Your task to perform on an android device: Empty the shopping cart on target. Image 0: 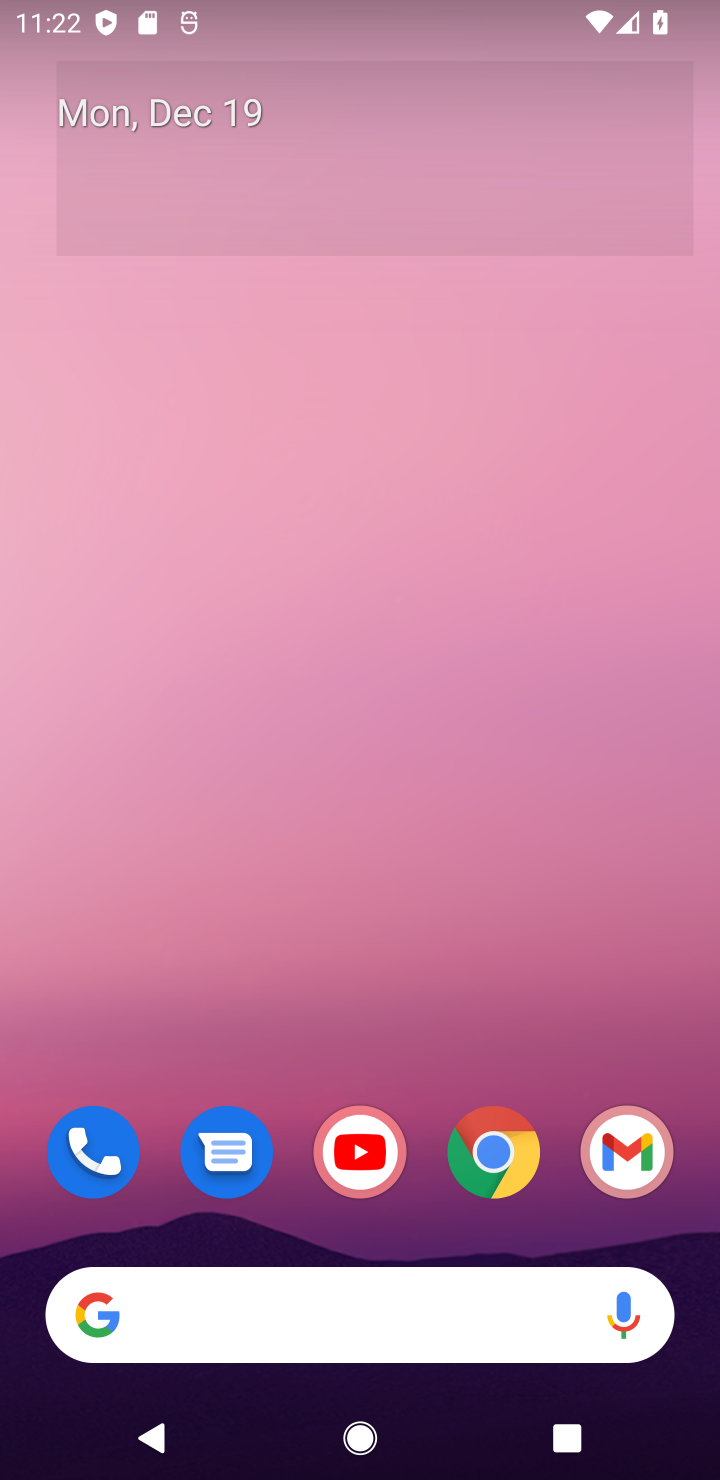
Step 0: click (493, 1164)
Your task to perform on an android device: Empty the shopping cart on target. Image 1: 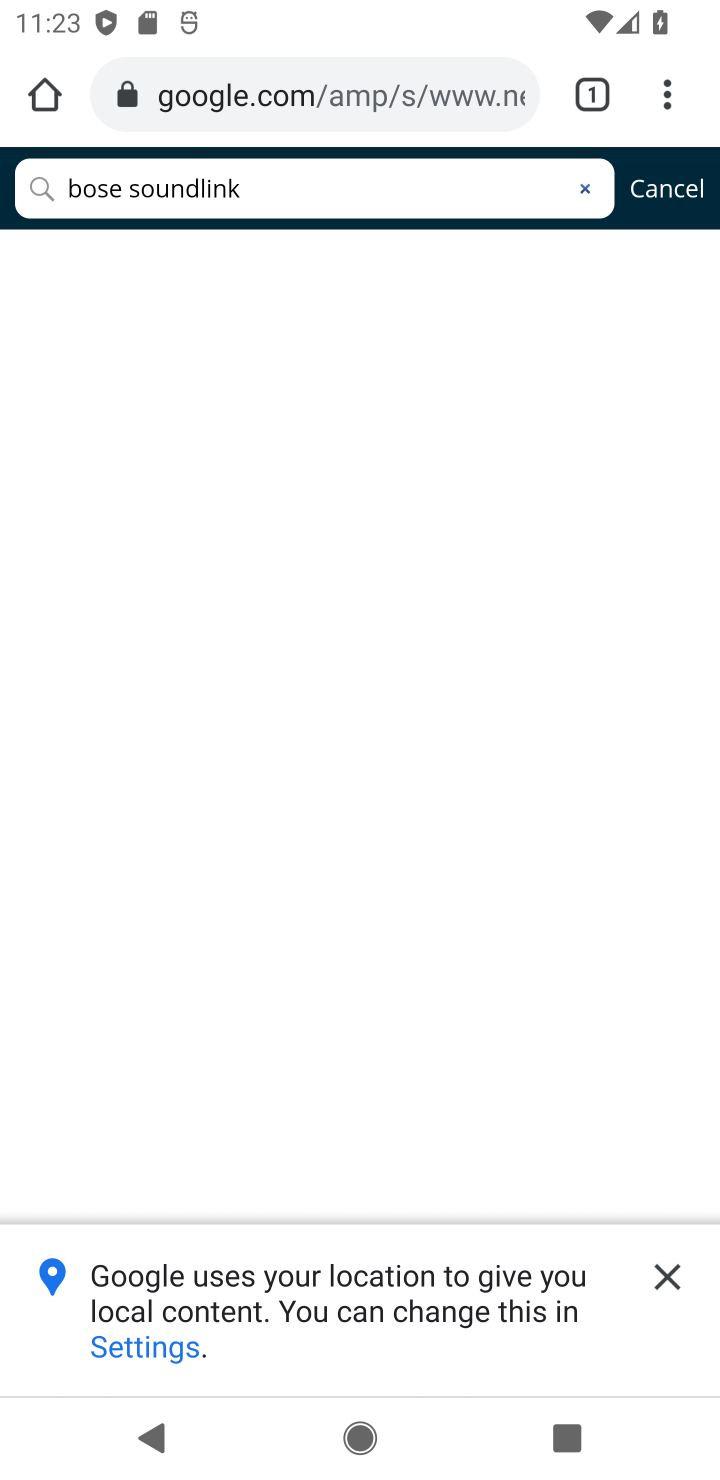
Step 1: click (333, 99)
Your task to perform on an android device: Empty the shopping cart on target. Image 2: 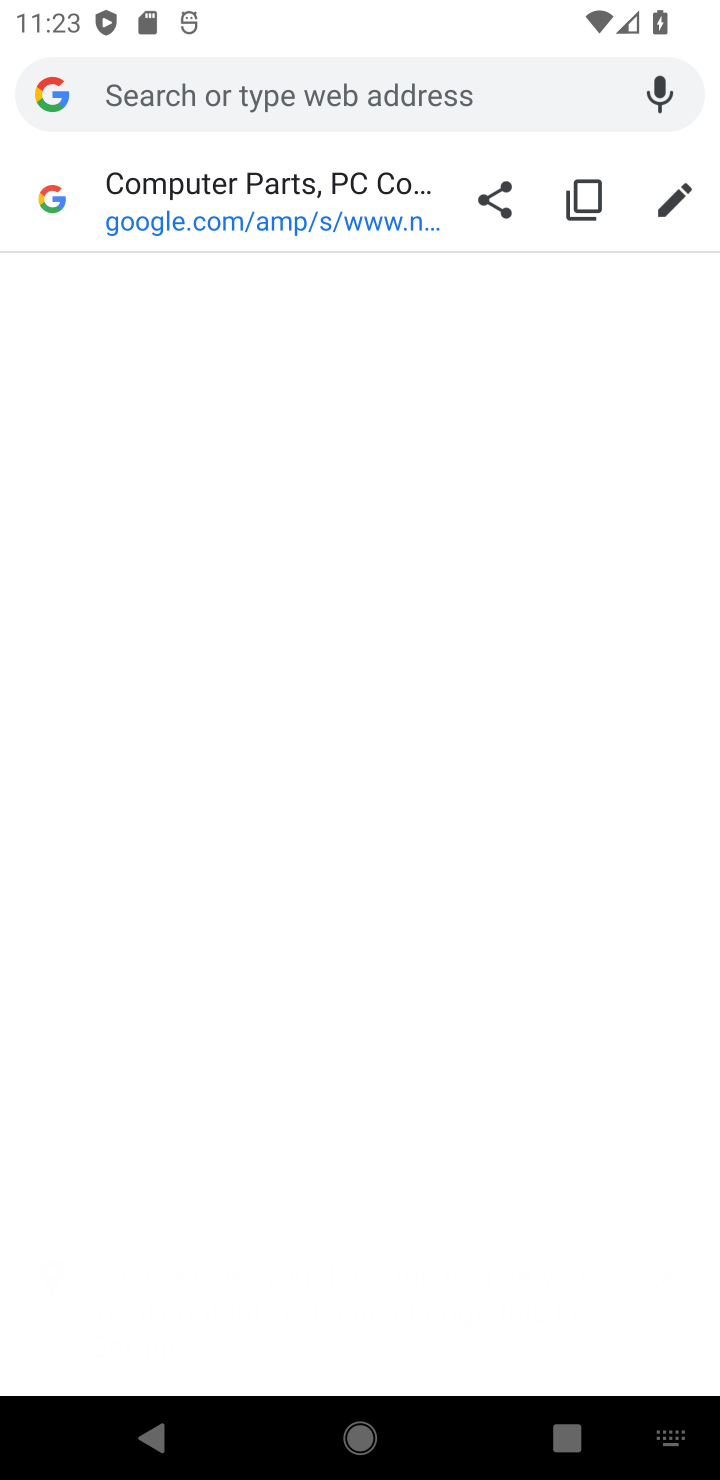
Step 2: type "target"
Your task to perform on an android device: Empty the shopping cart on target. Image 3: 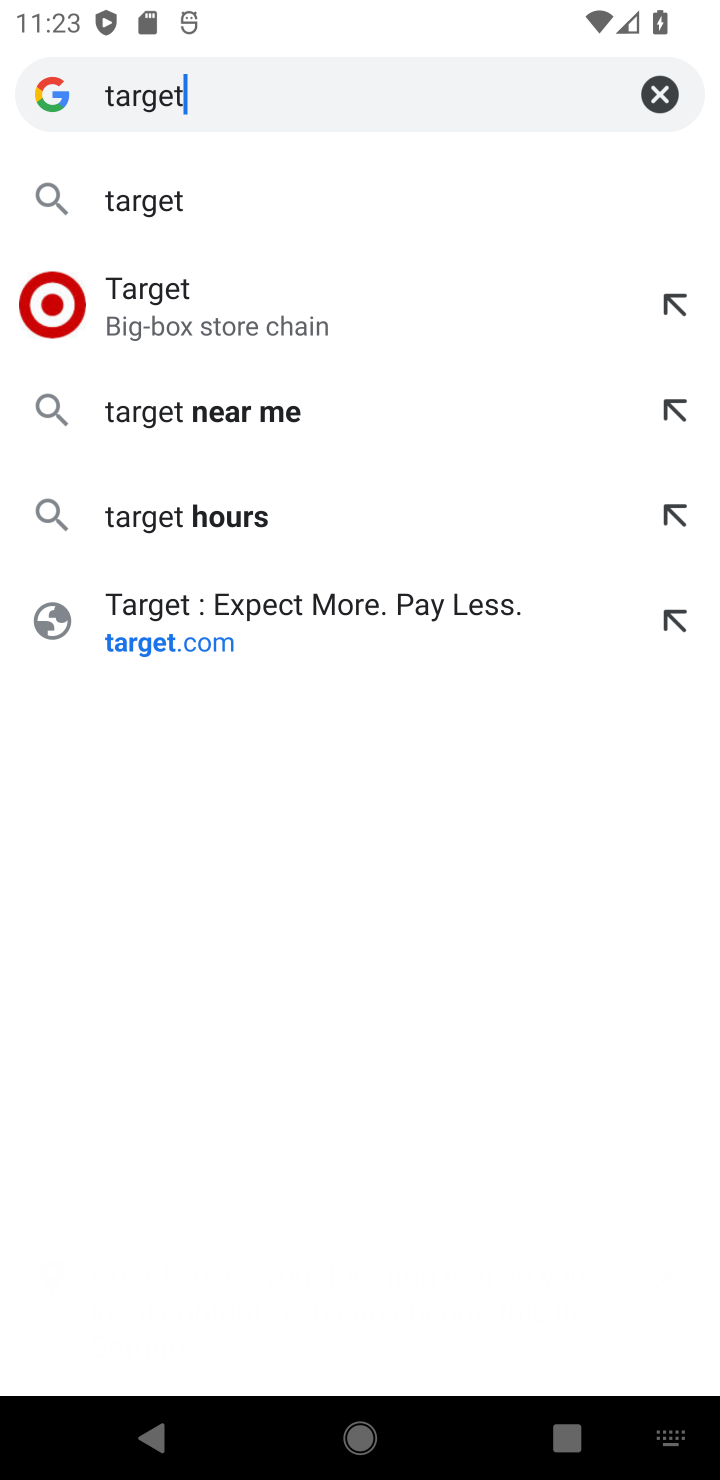
Step 3: click (126, 312)
Your task to perform on an android device: Empty the shopping cart on target. Image 4: 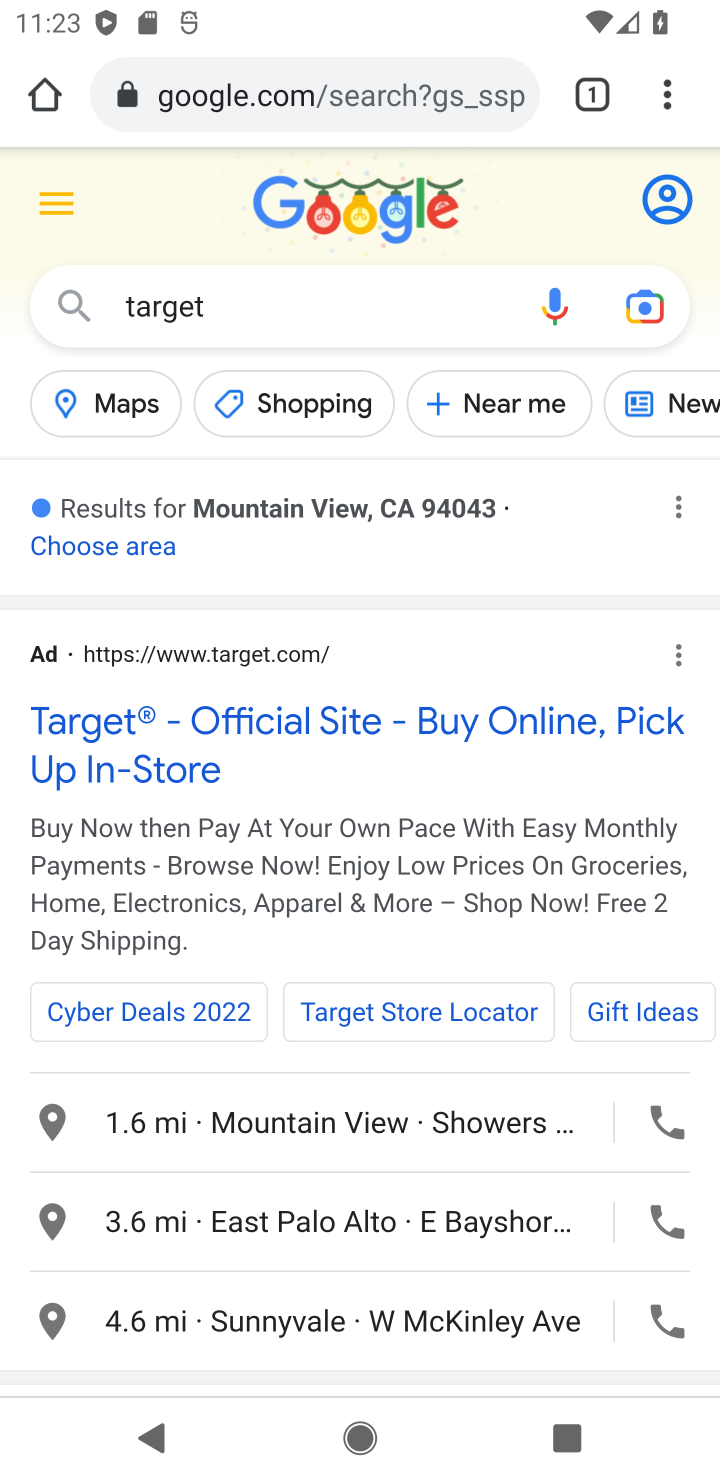
Step 4: click (275, 732)
Your task to perform on an android device: Empty the shopping cart on target. Image 5: 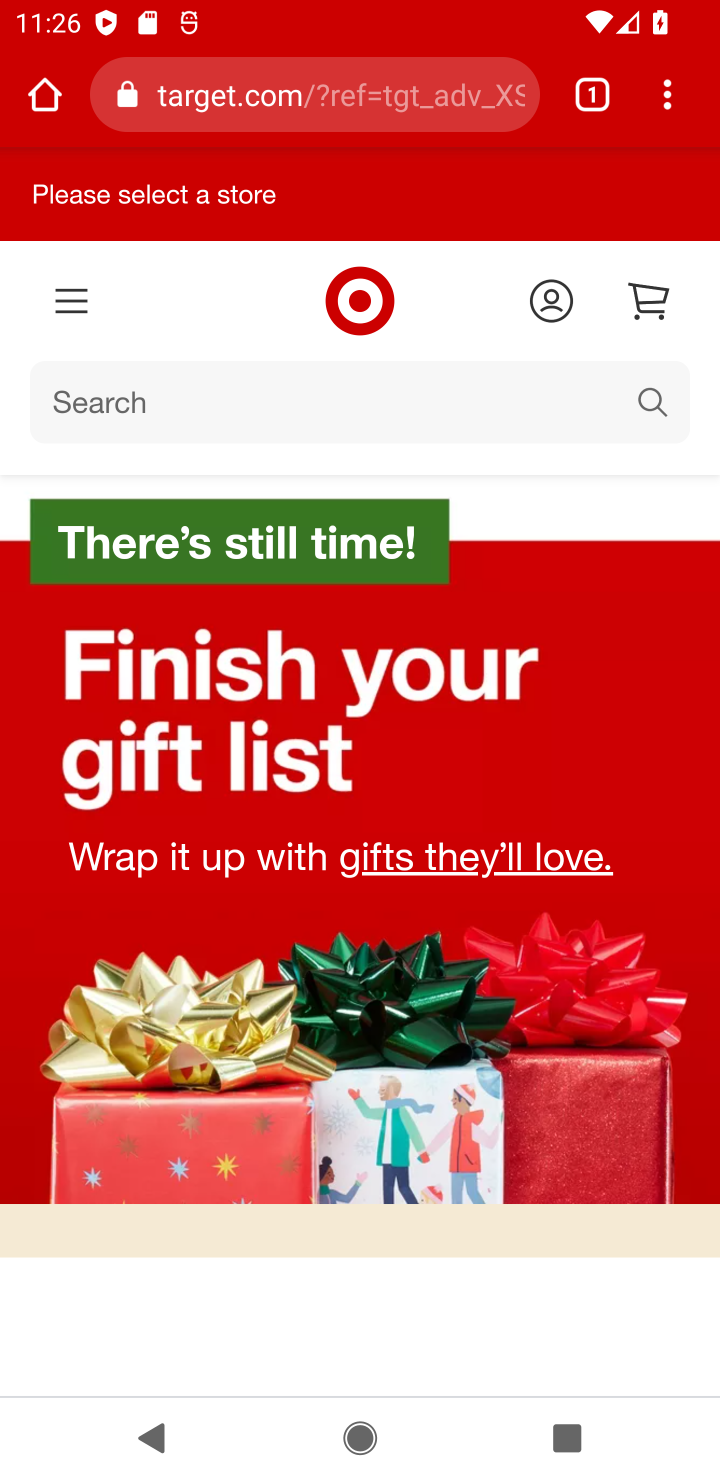
Step 5: task complete